Your task to perform on an android device: Open Yahoo.com Image 0: 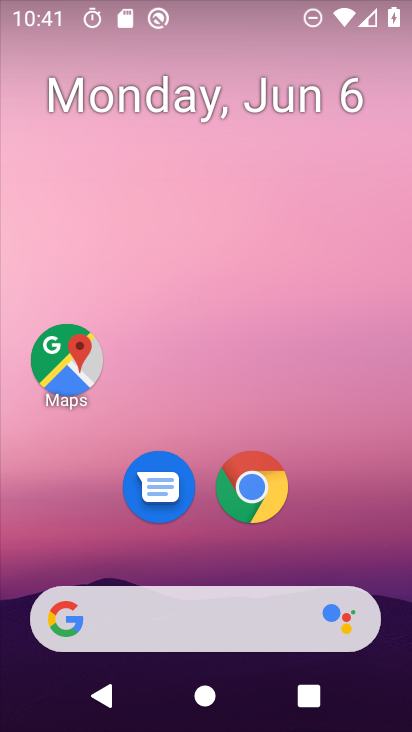
Step 0: click (393, 643)
Your task to perform on an android device: Open Yahoo.com Image 1: 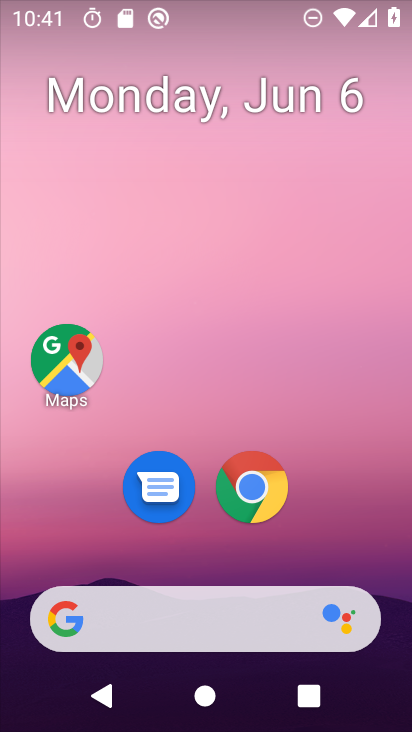
Step 1: drag from (358, 287) to (363, 165)
Your task to perform on an android device: Open Yahoo.com Image 2: 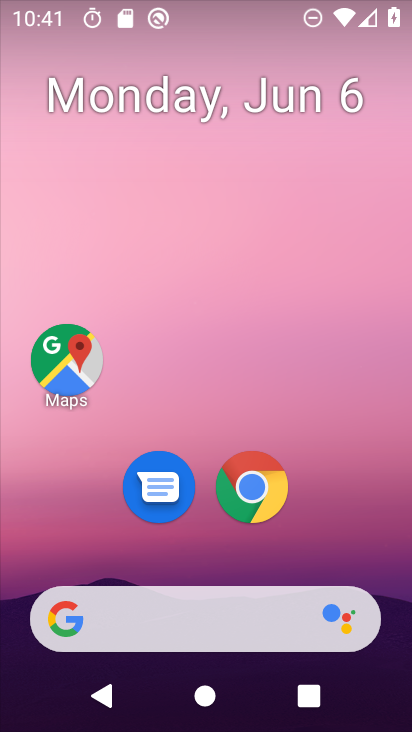
Step 2: drag from (382, 615) to (289, 134)
Your task to perform on an android device: Open Yahoo.com Image 3: 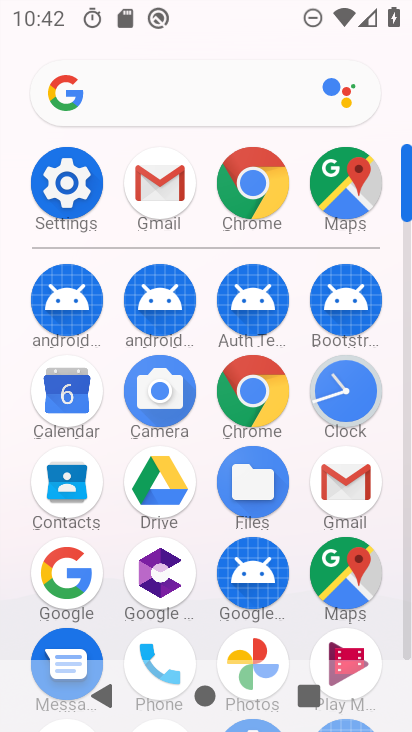
Step 3: click (56, 574)
Your task to perform on an android device: Open Yahoo.com Image 4: 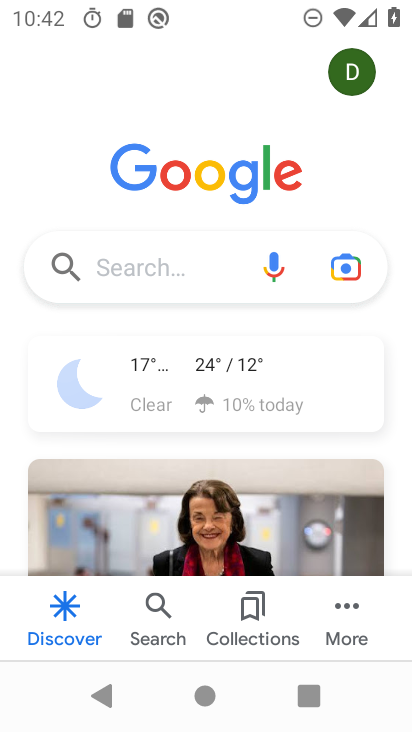
Step 4: click (137, 283)
Your task to perform on an android device: Open Yahoo.com Image 5: 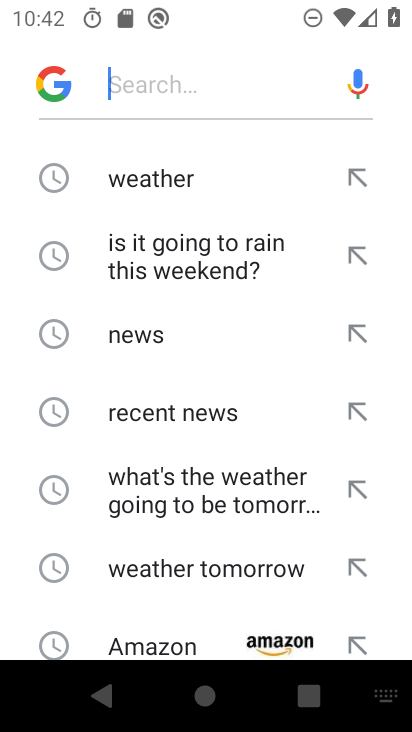
Step 5: drag from (172, 592) to (177, 315)
Your task to perform on an android device: Open Yahoo.com Image 6: 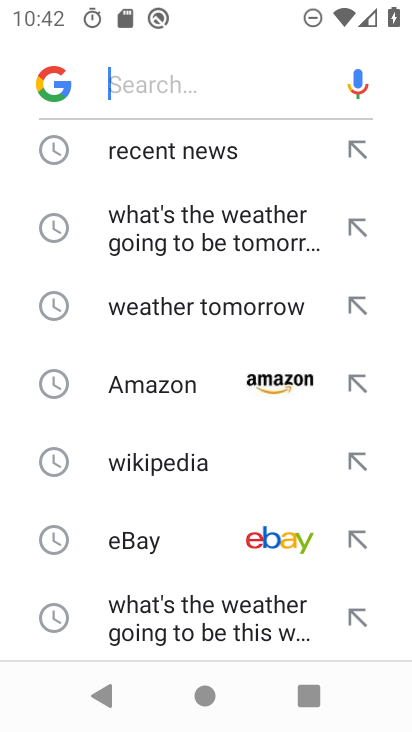
Step 6: drag from (193, 610) to (200, 295)
Your task to perform on an android device: Open Yahoo.com Image 7: 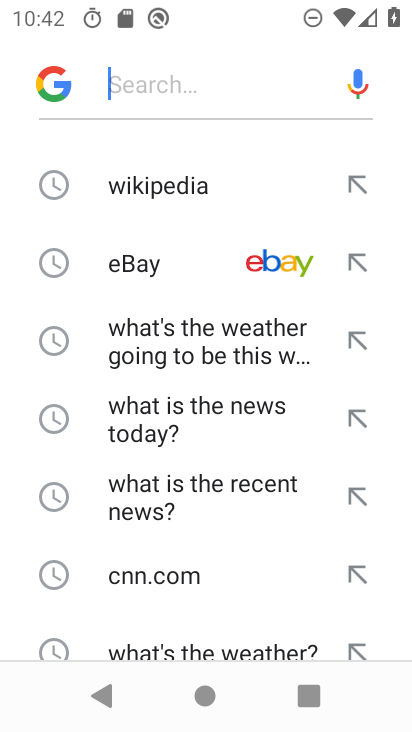
Step 7: drag from (212, 615) to (229, 248)
Your task to perform on an android device: Open Yahoo.com Image 8: 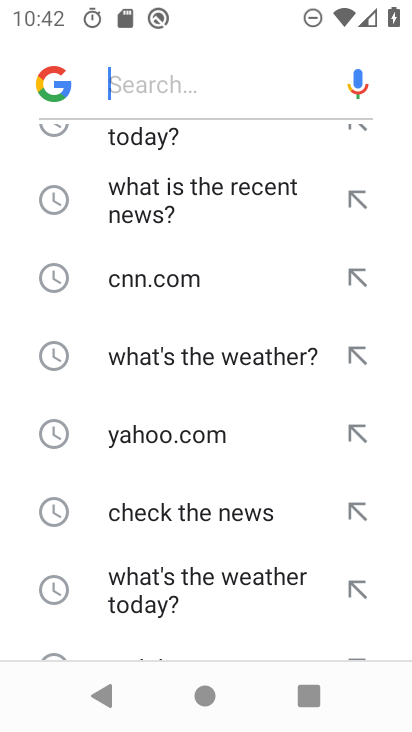
Step 8: click (204, 447)
Your task to perform on an android device: Open Yahoo.com Image 9: 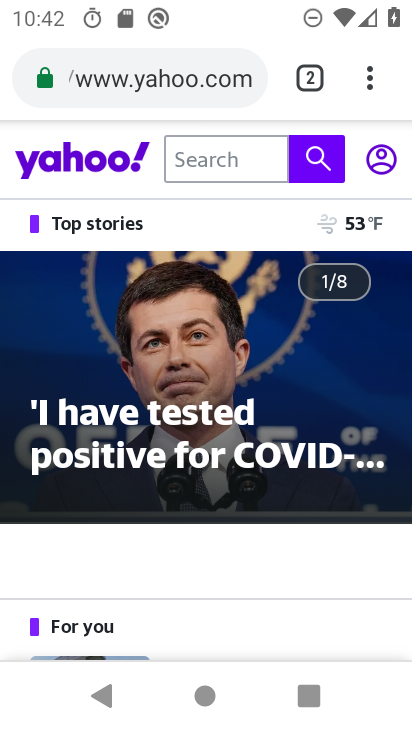
Step 9: task complete